Your task to perform on an android device: check battery use Image 0: 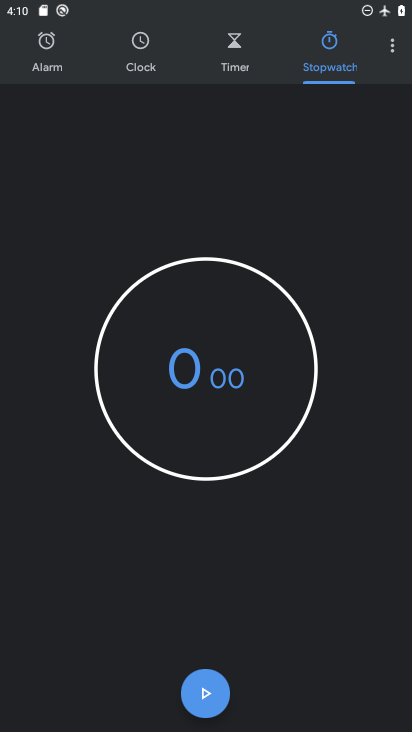
Step 0: press home button
Your task to perform on an android device: check battery use Image 1: 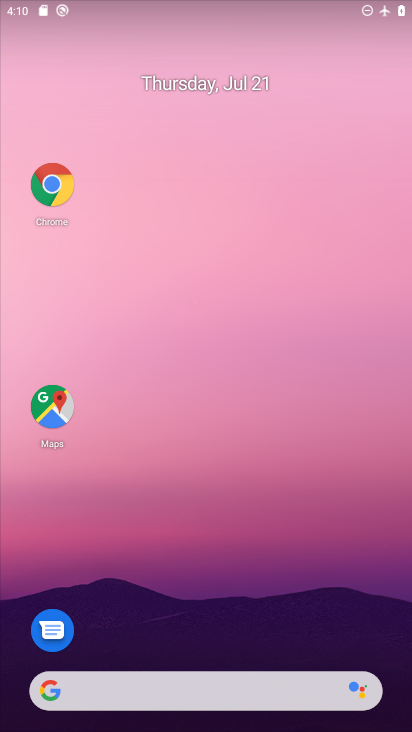
Step 1: drag from (203, 677) to (192, 57)
Your task to perform on an android device: check battery use Image 2: 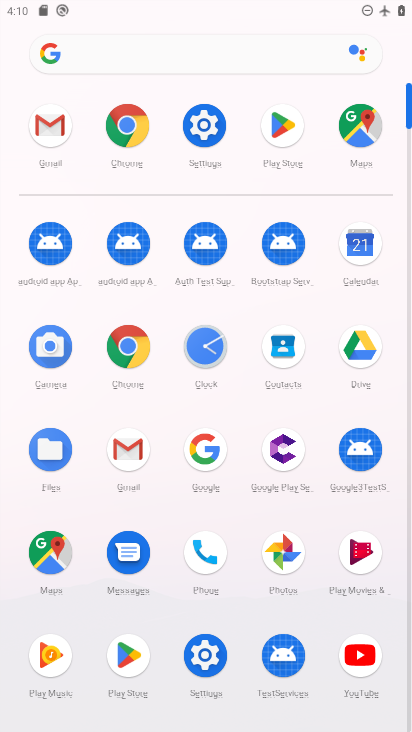
Step 2: click (209, 132)
Your task to perform on an android device: check battery use Image 3: 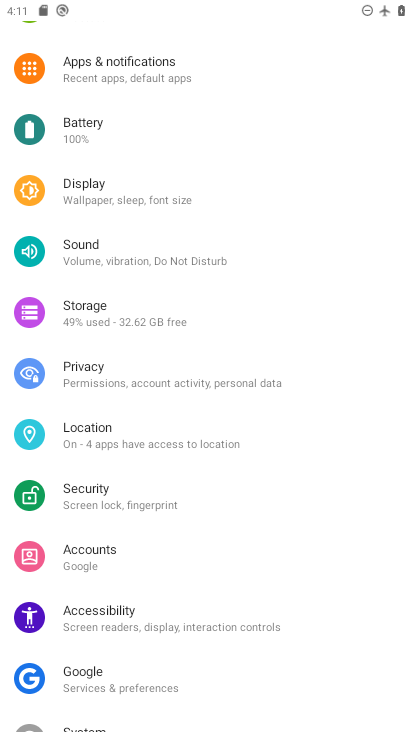
Step 3: click (97, 128)
Your task to perform on an android device: check battery use Image 4: 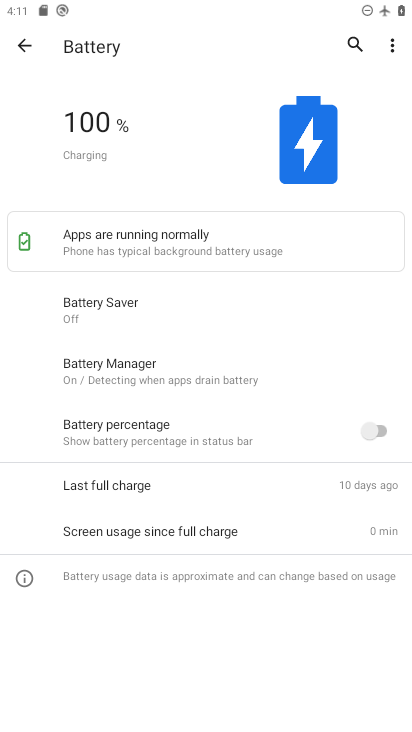
Step 4: task complete